Your task to perform on an android device: Open Yahoo.com Image 0: 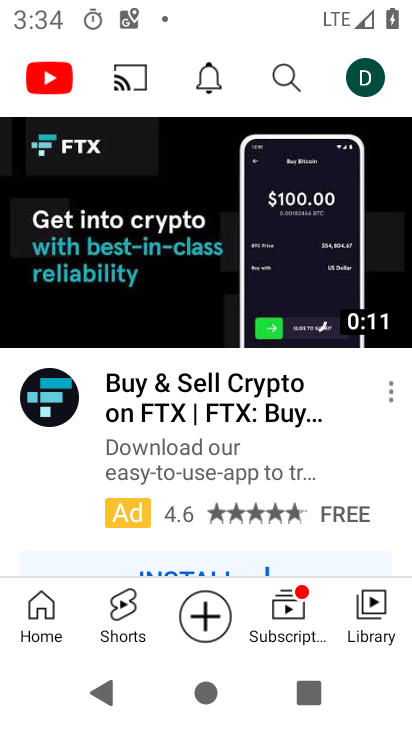
Step 0: press home button
Your task to perform on an android device: Open Yahoo.com Image 1: 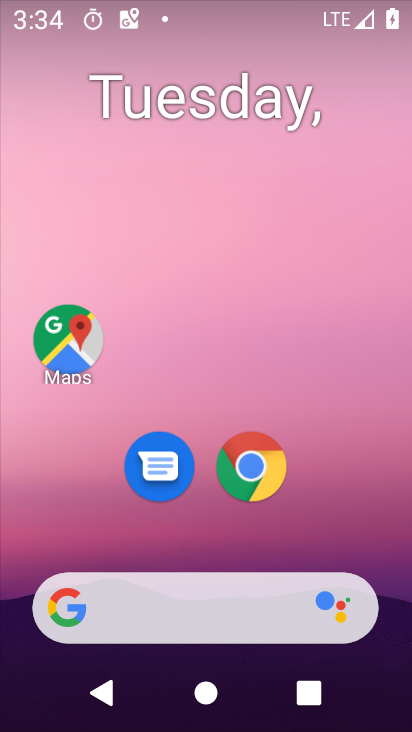
Step 1: drag from (376, 550) to (384, 141)
Your task to perform on an android device: Open Yahoo.com Image 2: 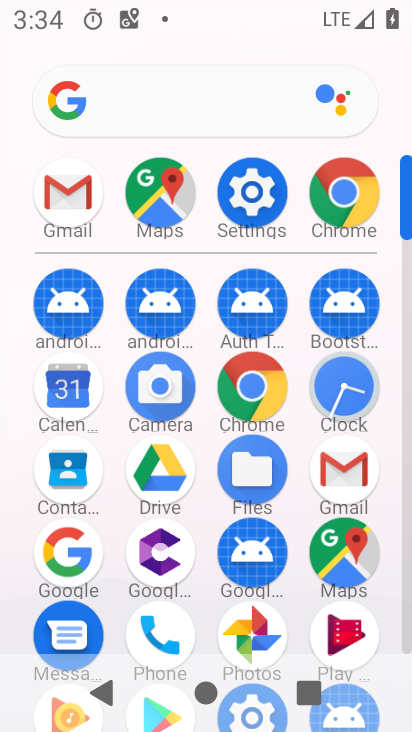
Step 2: click (273, 399)
Your task to perform on an android device: Open Yahoo.com Image 3: 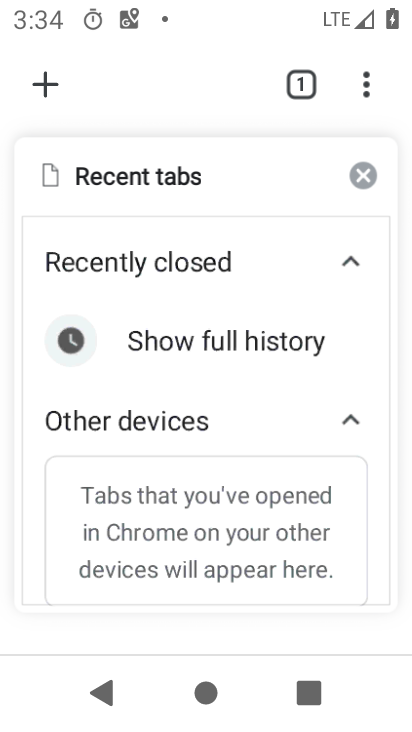
Step 3: press back button
Your task to perform on an android device: Open Yahoo.com Image 4: 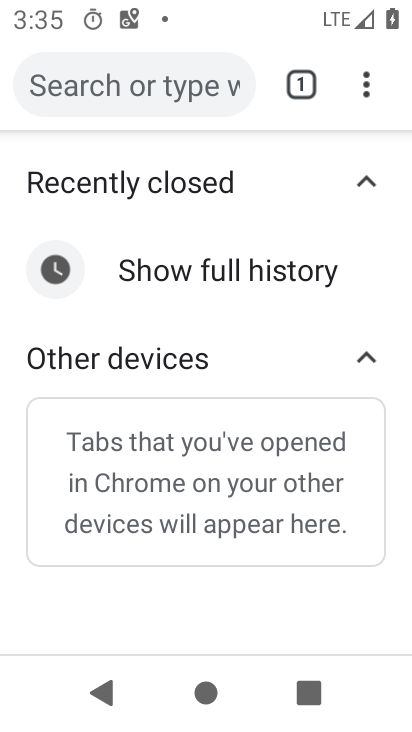
Step 4: click (223, 97)
Your task to perform on an android device: Open Yahoo.com Image 5: 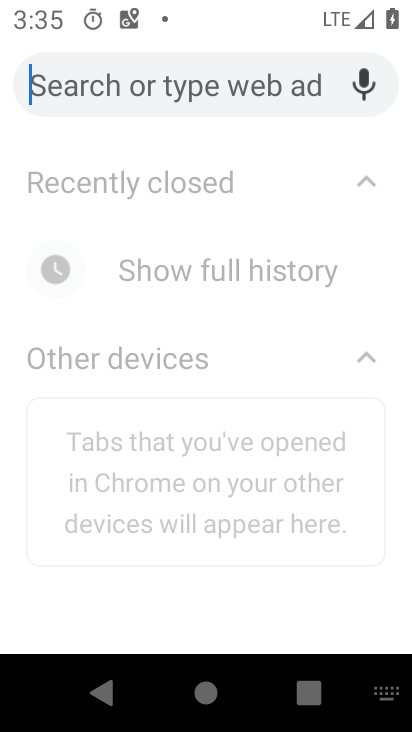
Step 5: type "yahoo.com"
Your task to perform on an android device: Open Yahoo.com Image 6: 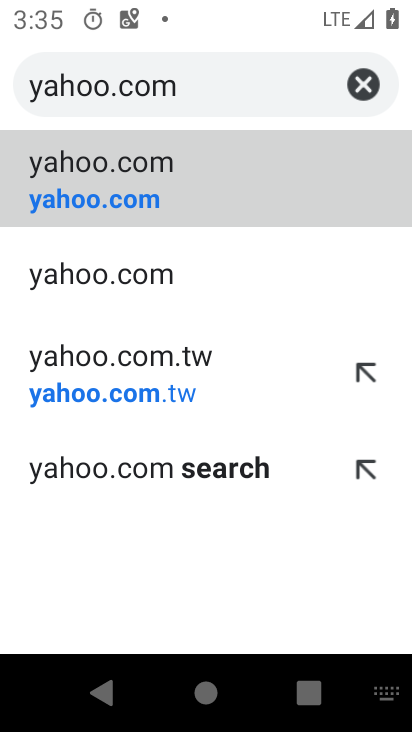
Step 6: click (226, 174)
Your task to perform on an android device: Open Yahoo.com Image 7: 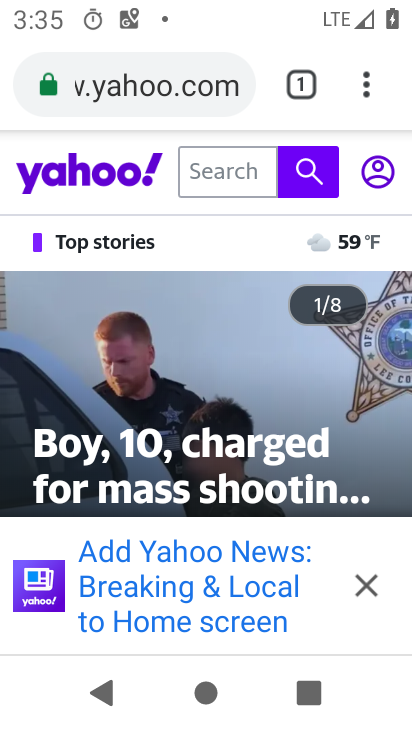
Step 7: task complete